Your task to perform on an android device: See recent photos Image 0: 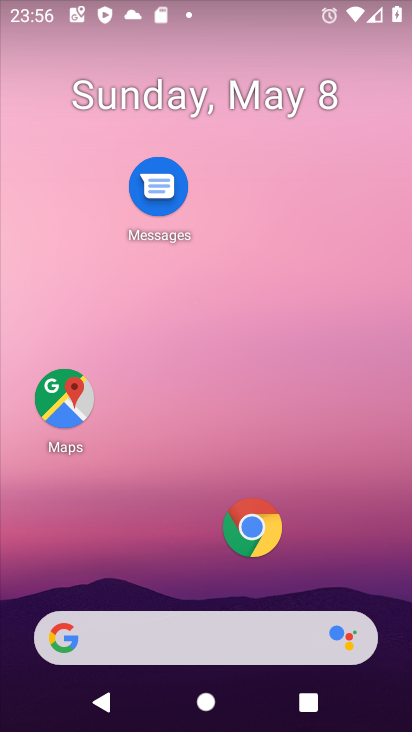
Step 0: drag from (210, 573) to (169, 39)
Your task to perform on an android device: See recent photos Image 1: 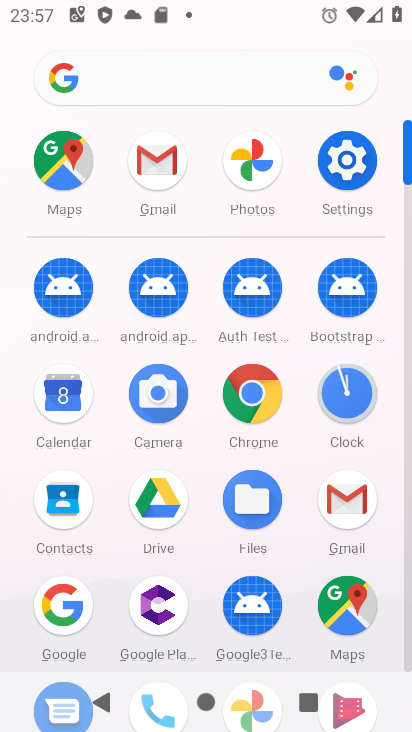
Step 1: click (241, 163)
Your task to perform on an android device: See recent photos Image 2: 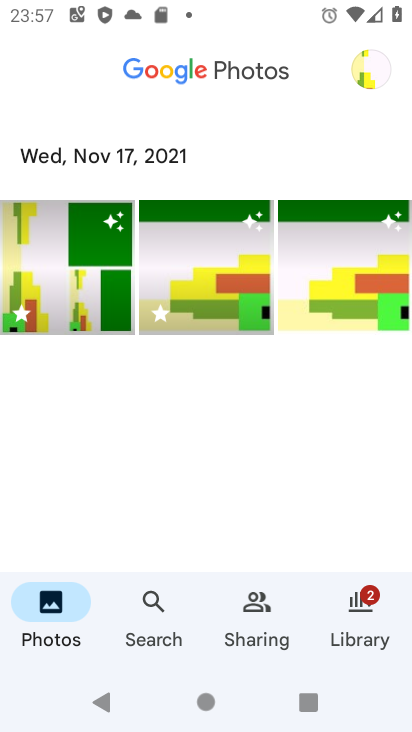
Step 2: task complete